Your task to perform on an android device: turn off sleep mode Image 0: 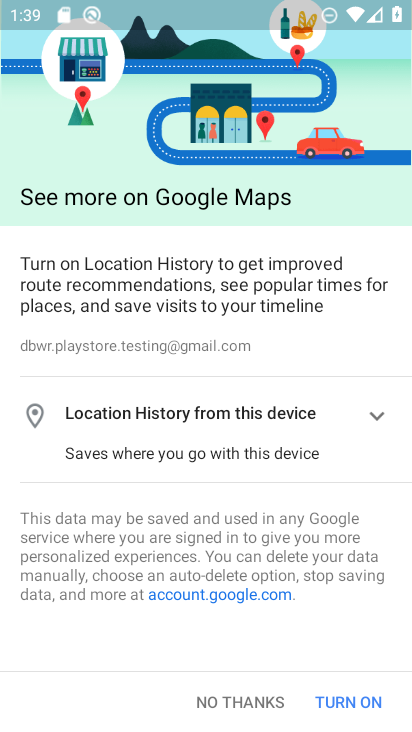
Step 0: press home button
Your task to perform on an android device: turn off sleep mode Image 1: 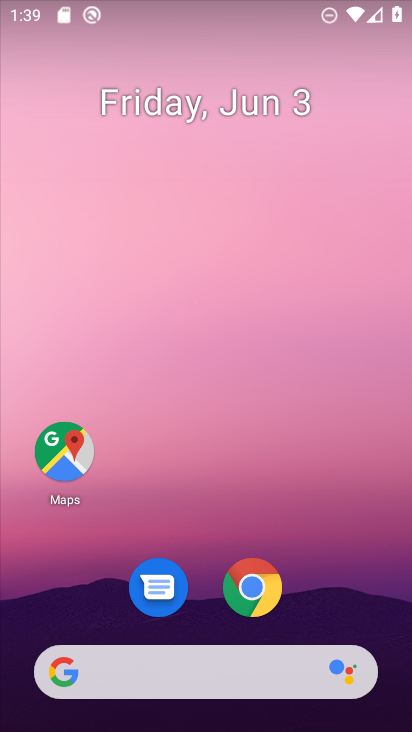
Step 1: drag from (191, 630) to (201, 0)
Your task to perform on an android device: turn off sleep mode Image 2: 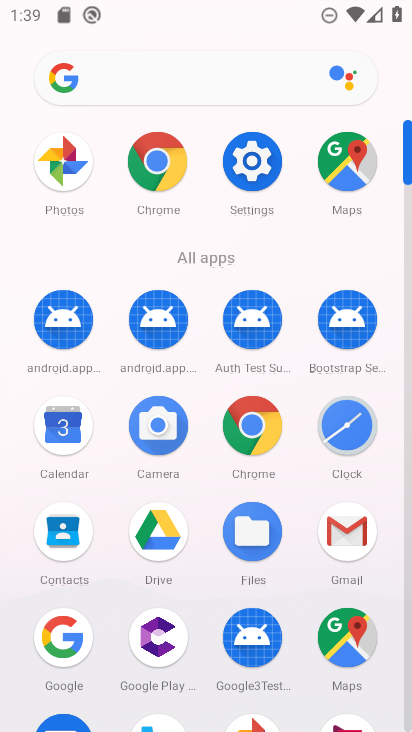
Step 2: click (247, 169)
Your task to perform on an android device: turn off sleep mode Image 3: 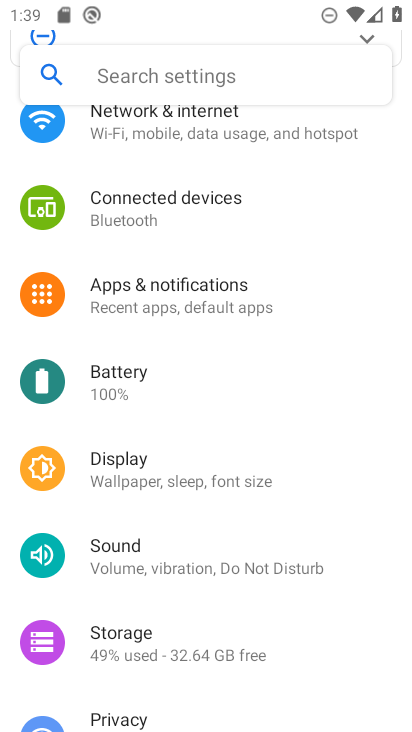
Step 3: click (218, 481)
Your task to perform on an android device: turn off sleep mode Image 4: 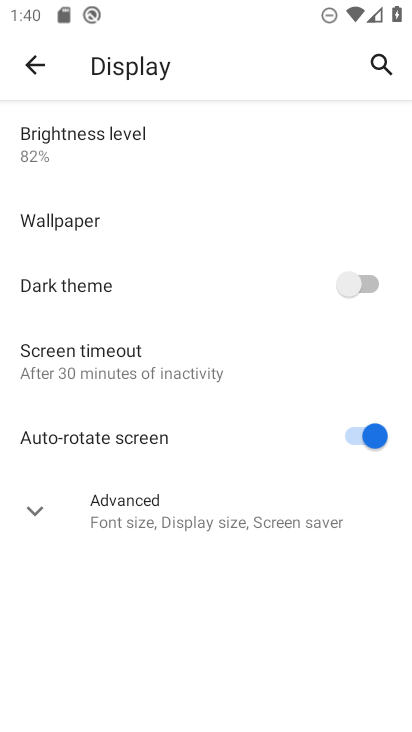
Step 4: click (212, 497)
Your task to perform on an android device: turn off sleep mode Image 5: 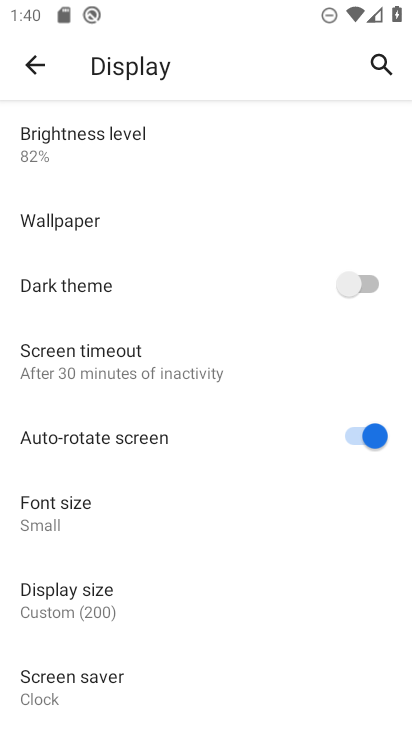
Step 5: task complete